Your task to perform on an android device: turn notification dots on Image 0: 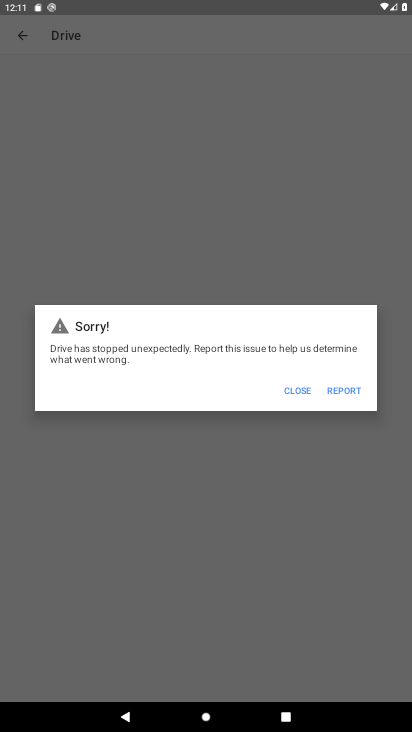
Step 0: press home button
Your task to perform on an android device: turn notification dots on Image 1: 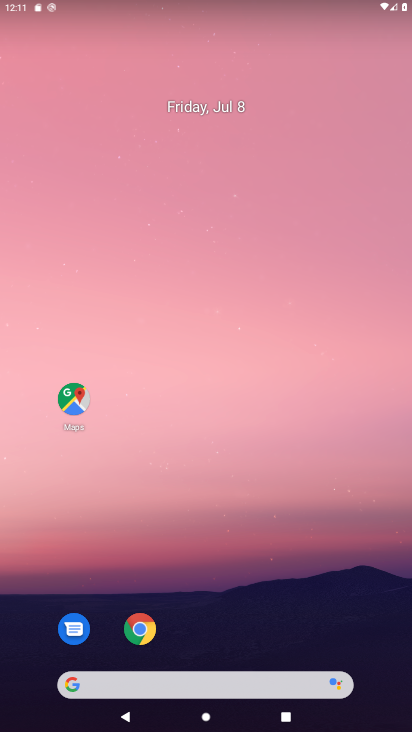
Step 1: drag from (308, 590) to (298, 342)
Your task to perform on an android device: turn notification dots on Image 2: 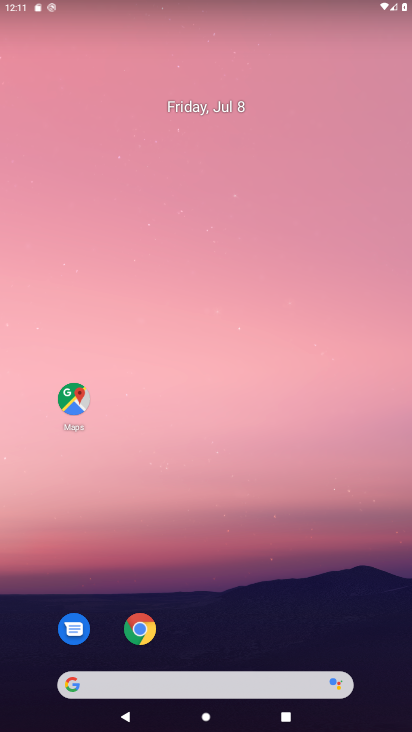
Step 2: drag from (309, 584) to (263, 123)
Your task to perform on an android device: turn notification dots on Image 3: 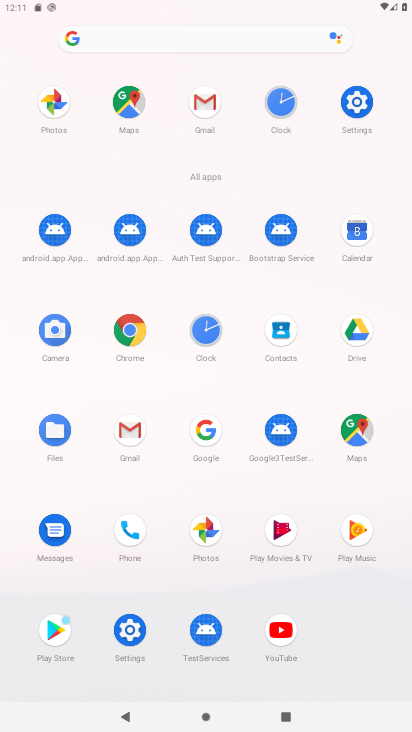
Step 3: click (352, 102)
Your task to perform on an android device: turn notification dots on Image 4: 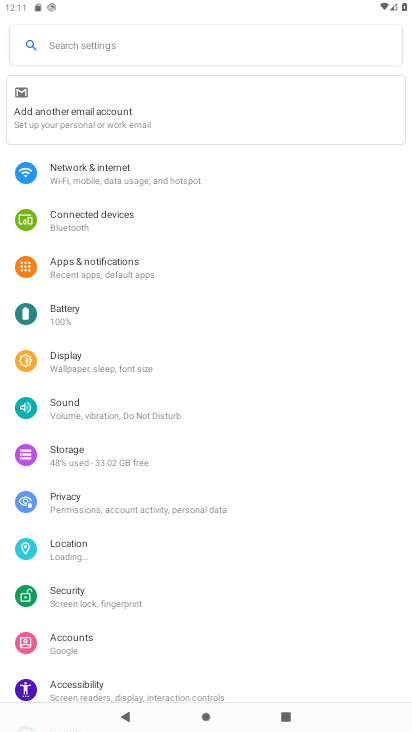
Step 4: click (131, 274)
Your task to perform on an android device: turn notification dots on Image 5: 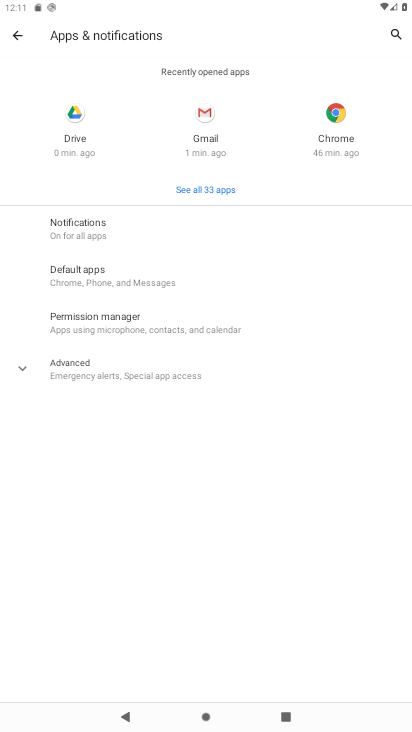
Step 5: click (115, 235)
Your task to perform on an android device: turn notification dots on Image 6: 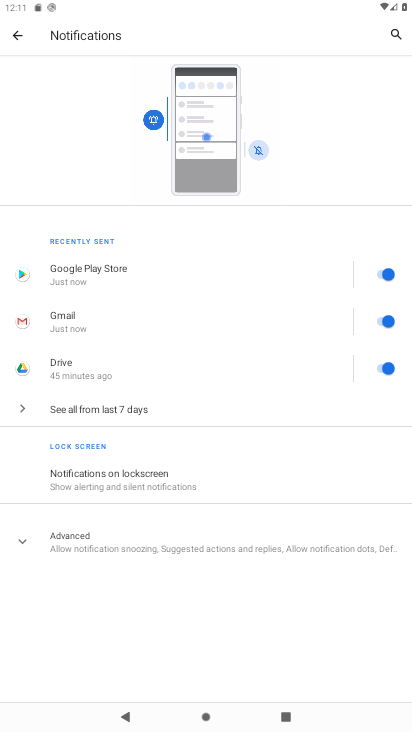
Step 6: click (145, 530)
Your task to perform on an android device: turn notification dots on Image 7: 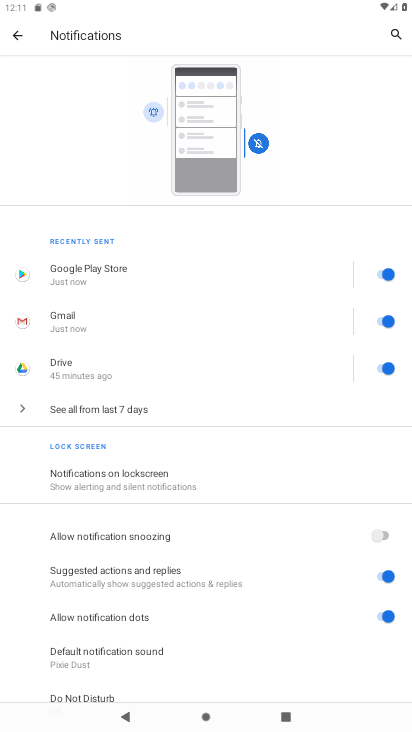
Step 7: task complete